Your task to perform on an android device: empty trash in google photos Image 0: 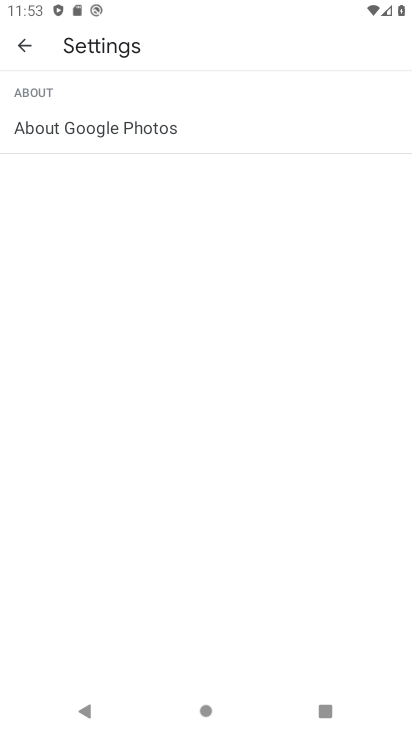
Step 0: press home button
Your task to perform on an android device: empty trash in google photos Image 1: 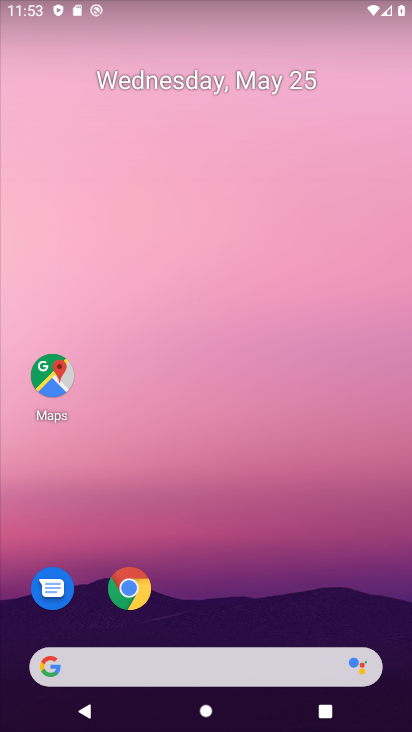
Step 1: drag from (159, 645) to (298, 101)
Your task to perform on an android device: empty trash in google photos Image 2: 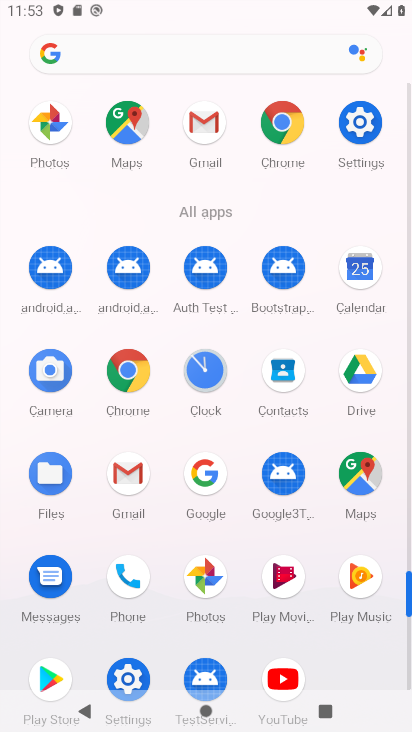
Step 2: click (211, 592)
Your task to perform on an android device: empty trash in google photos Image 3: 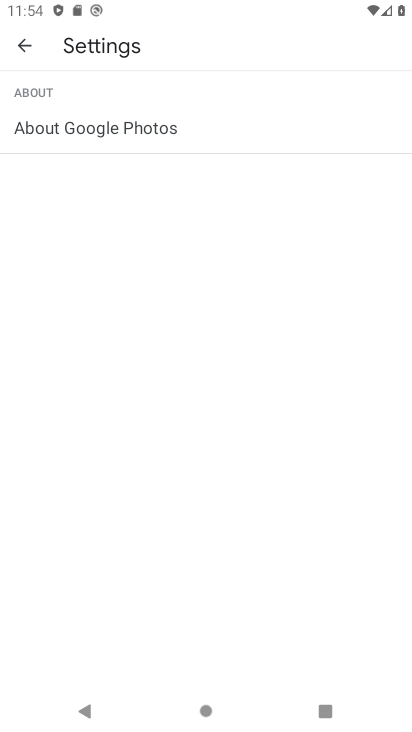
Step 3: click (39, 59)
Your task to perform on an android device: empty trash in google photos Image 4: 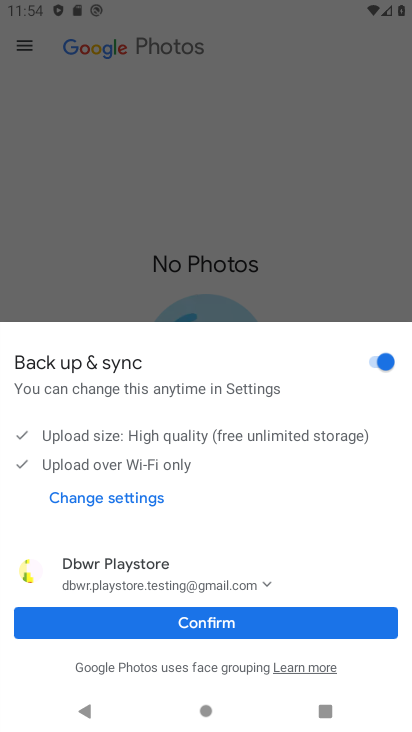
Step 4: click (249, 632)
Your task to perform on an android device: empty trash in google photos Image 5: 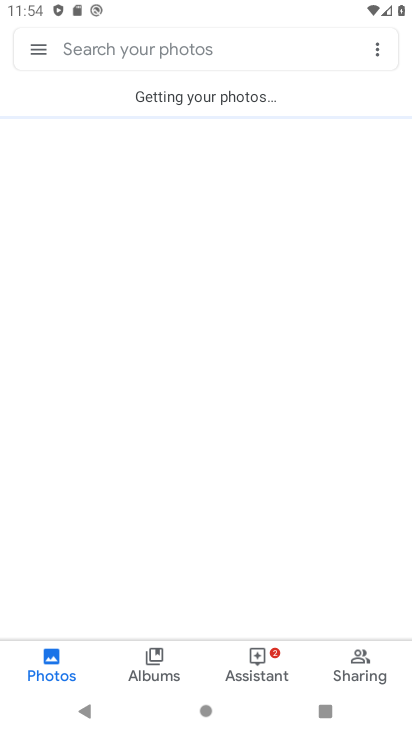
Step 5: click (44, 55)
Your task to perform on an android device: empty trash in google photos Image 6: 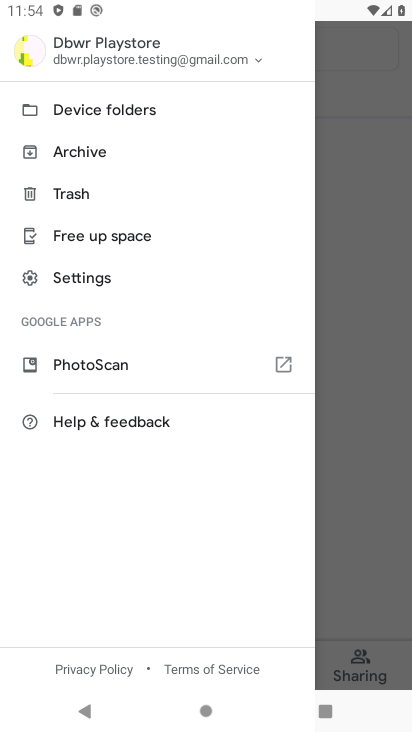
Step 6: click (161, 192)
Your task to perform on an android device: empty trash in google photos Image 7: 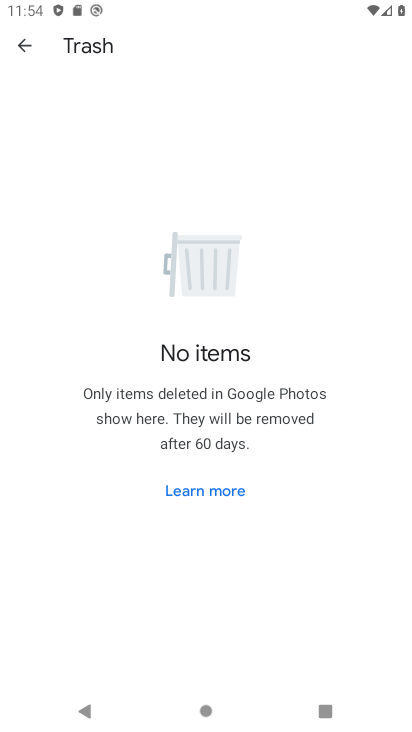
Step 7: task complete